Your task to perform on an android device: change keyboard looks Image 0: 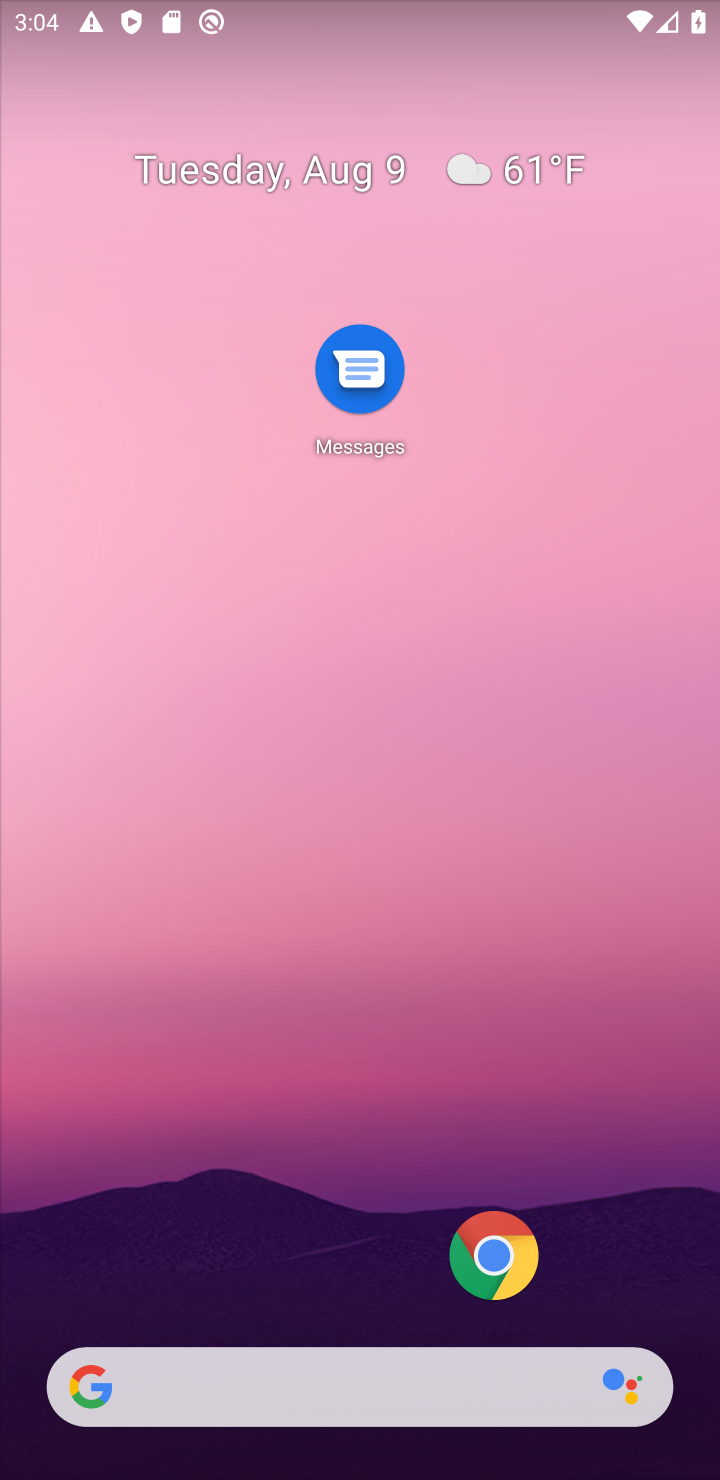
Step 0: drag from (337, 1077) to (339, 157)
Your task to perform on an android device: change keyboard looks Image 1: 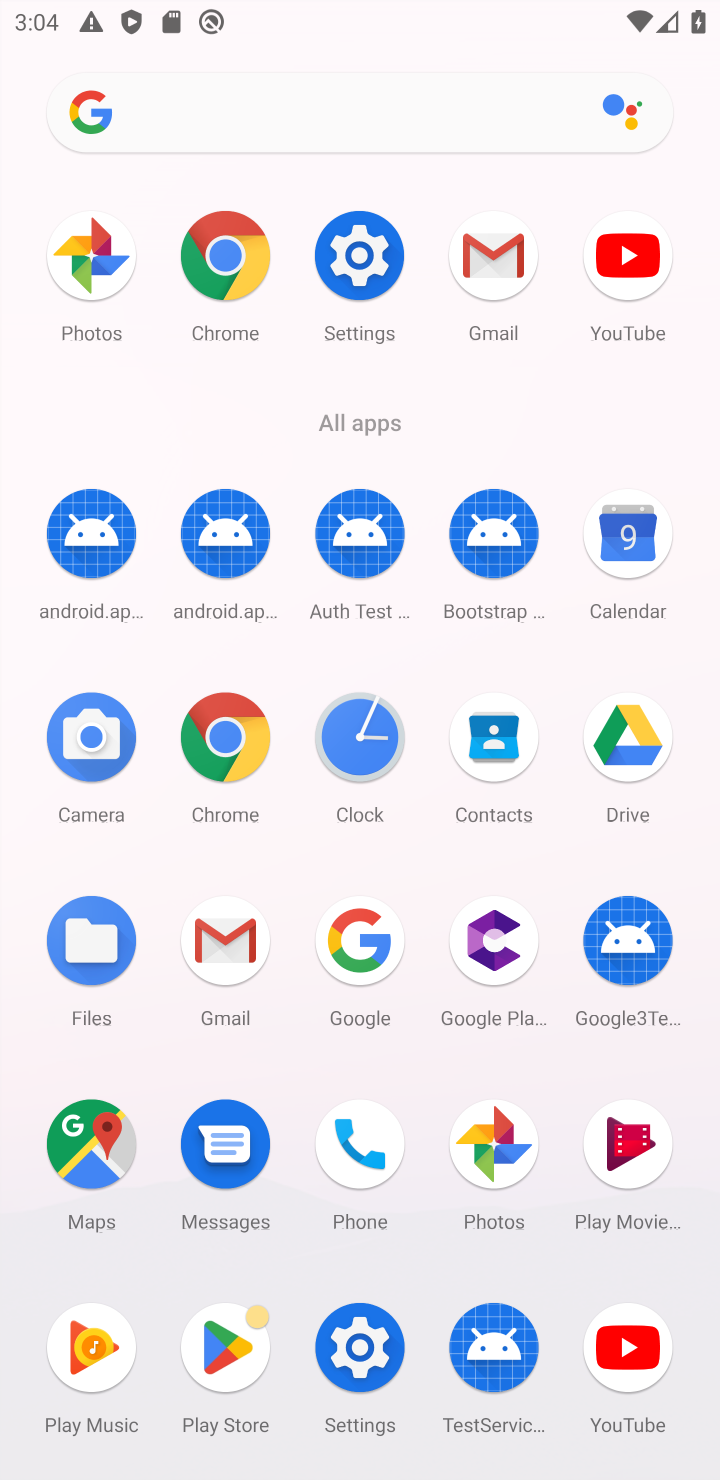
Step 1: click (341, 212)
Your task to perform on an android device: change keyboard looks Image 2: 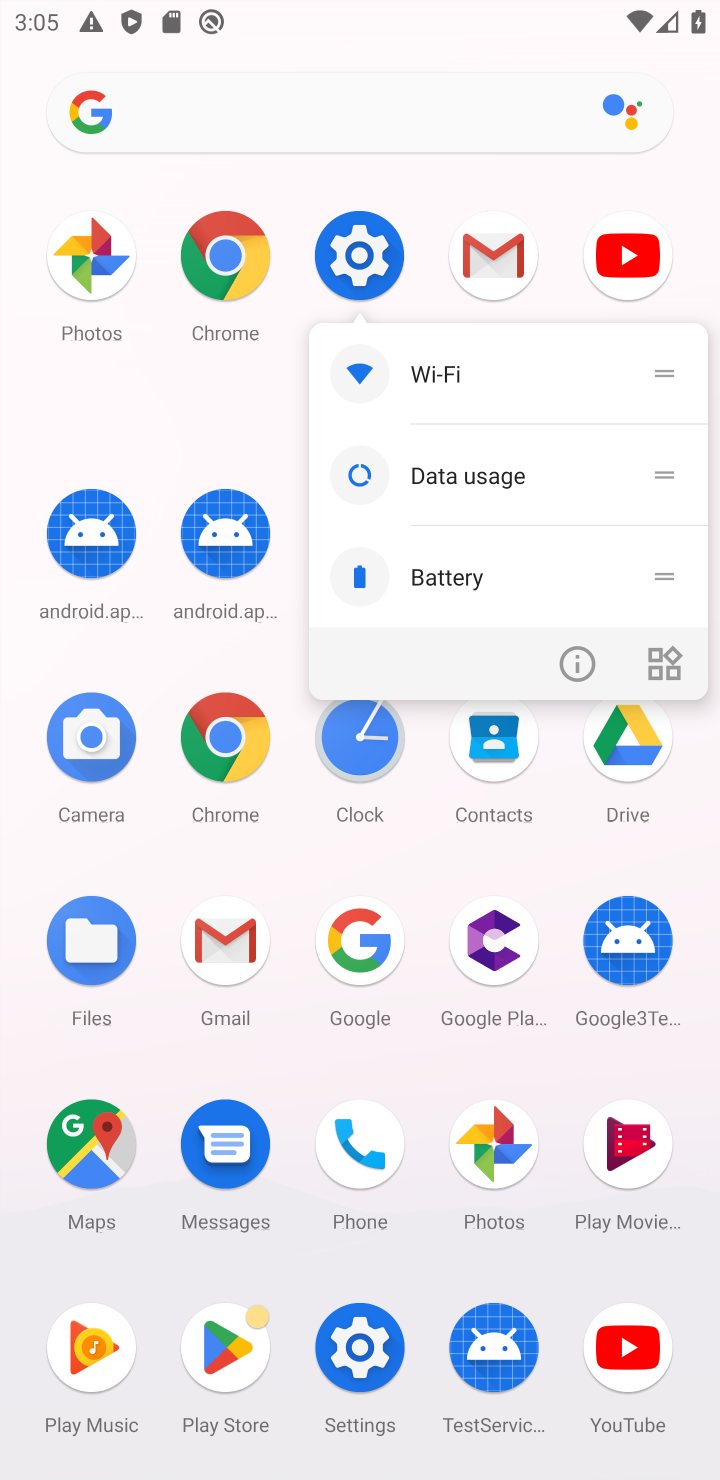
Step 2: click (354, 245)
Your task to perform on an android device: change keyboard looks Image 3: 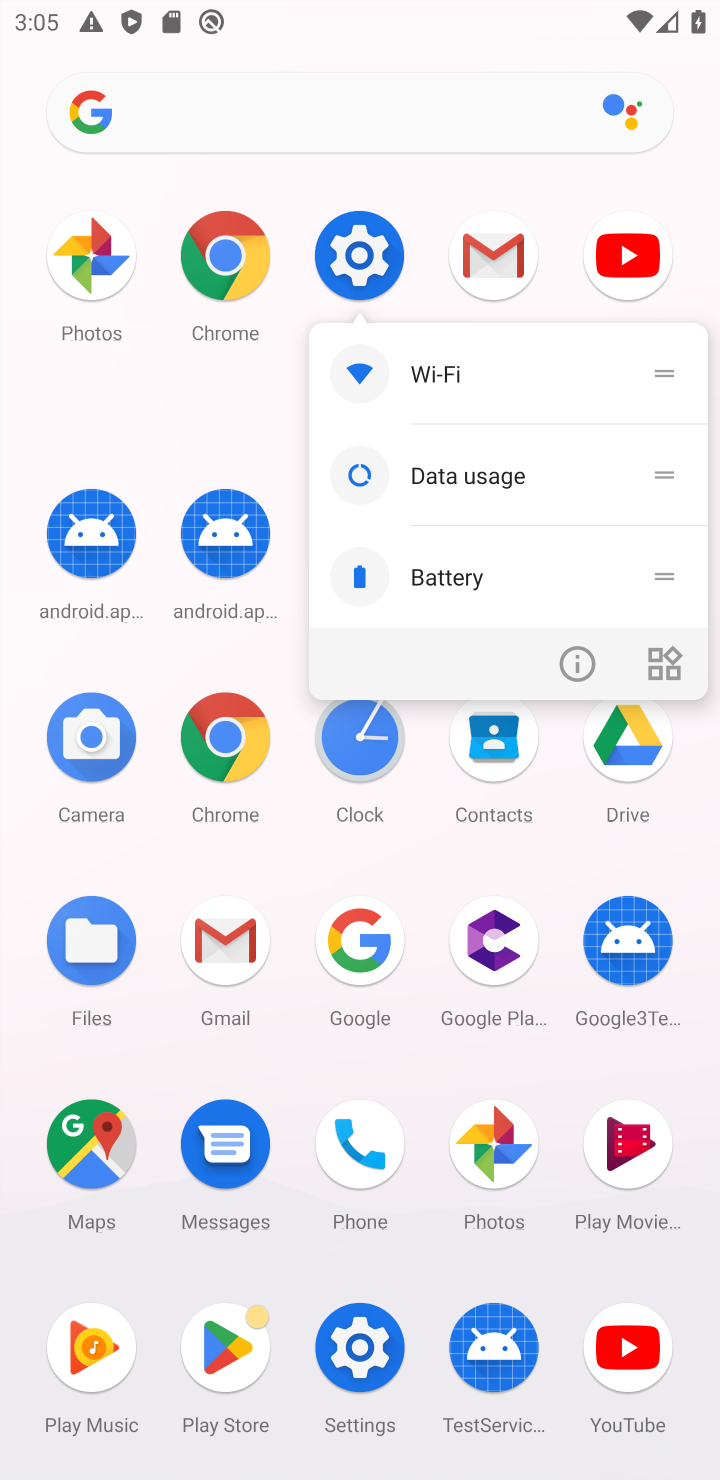
Step 3: click (345, 251)
Your task to perform on an android device: change keyboard looks Image 4: 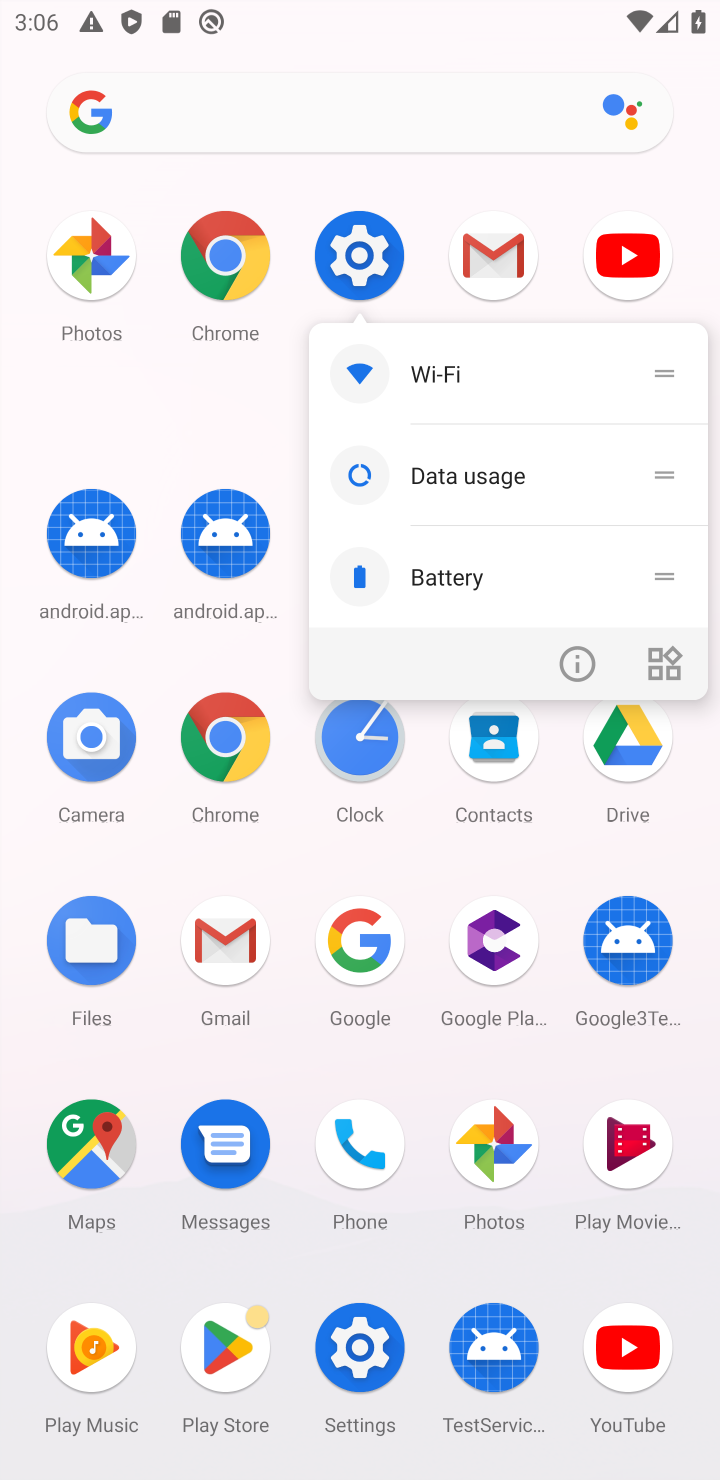
Step 4: click (364, 249)
Your task to perform on an android device: change keyboard looks Image 5: 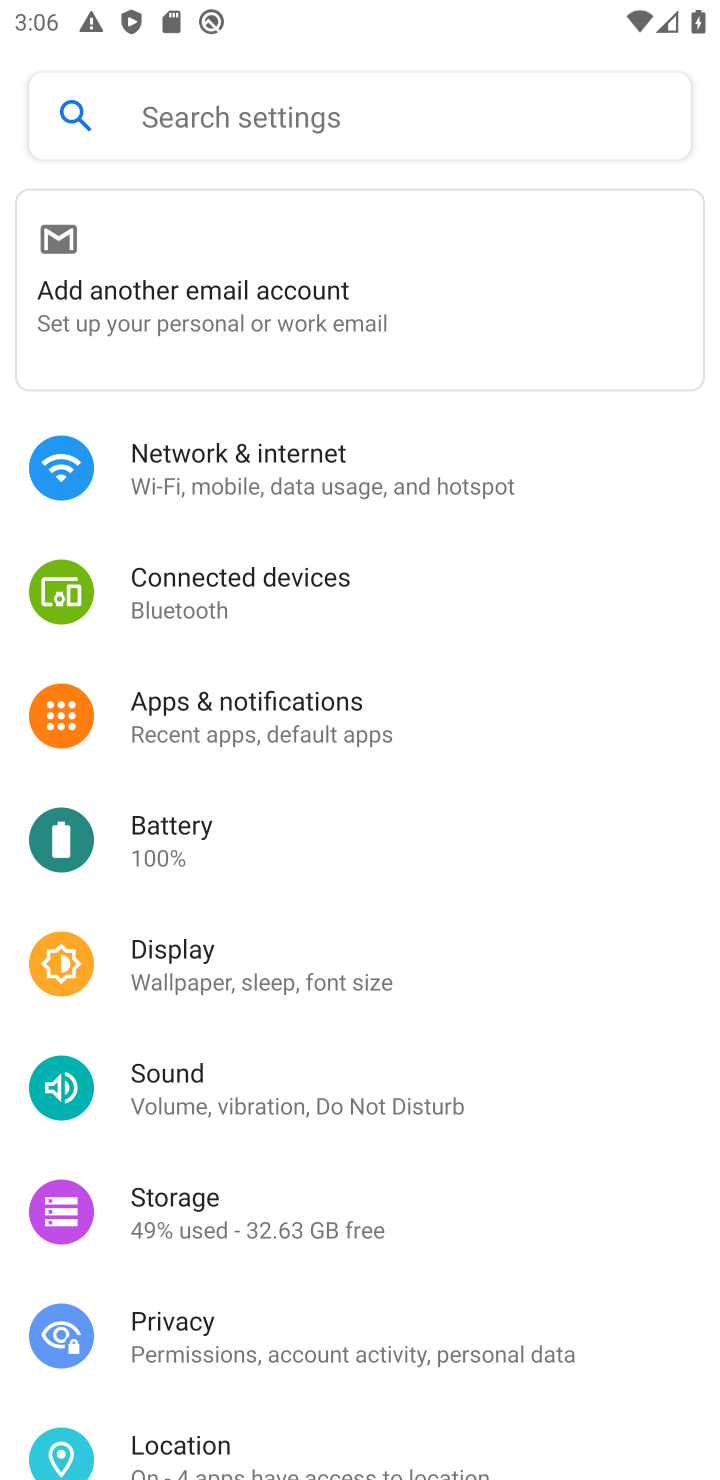
Step 5: drag from (326, 1291) to (383, 232)
Your task to perform on an android device: change keyboard looks Image 6: 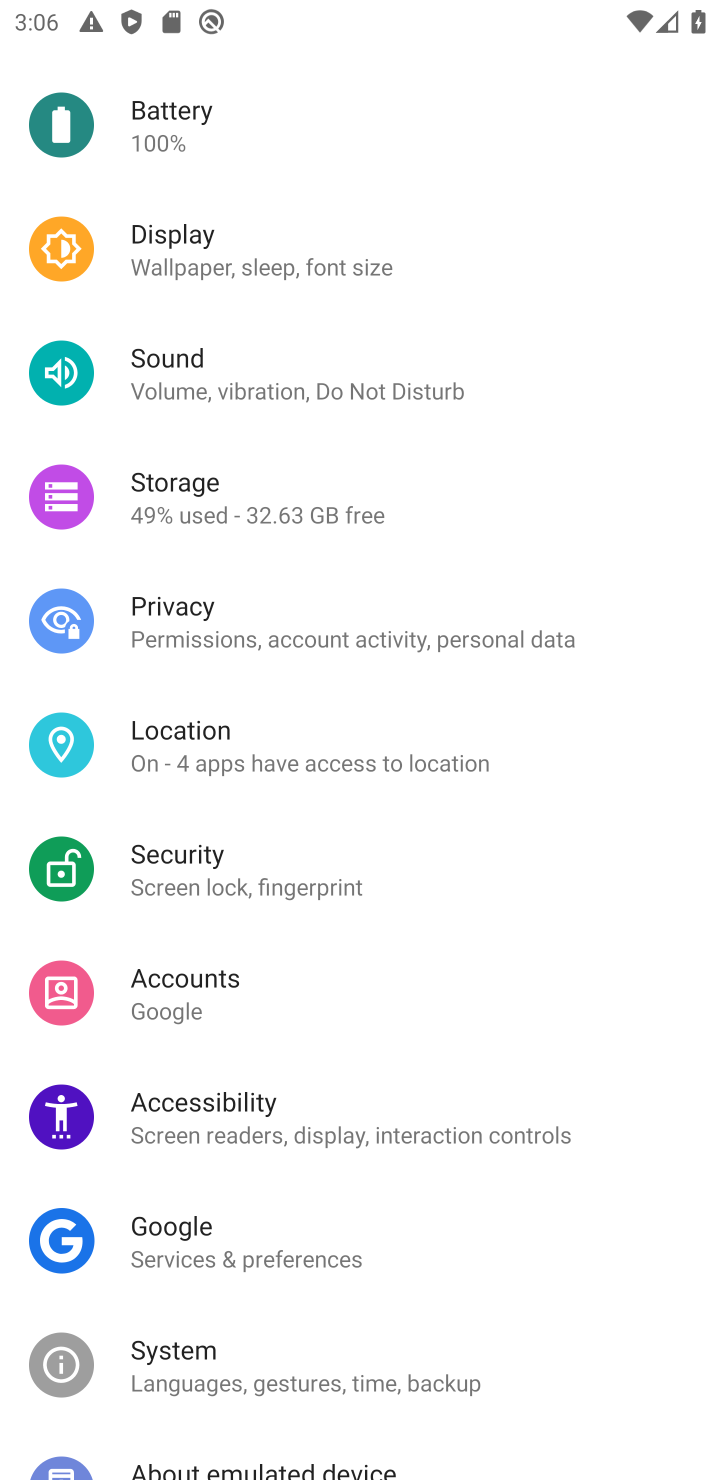
Step 6: click (279, 1107)
Your task to perform on an android device: change keyboard looks Image 7: 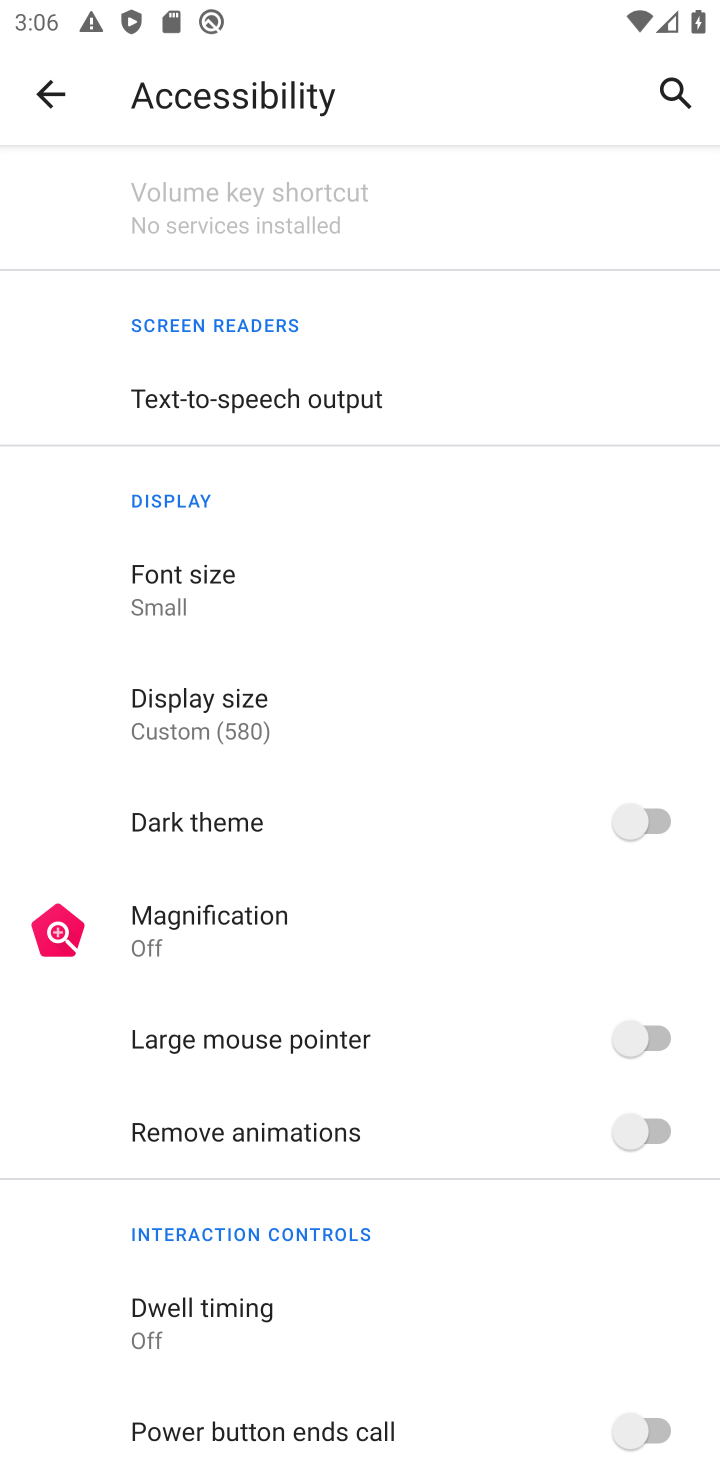
Step 7: click (265, 566)
Your task to perform on an android device: change keyboard looks Image 8: 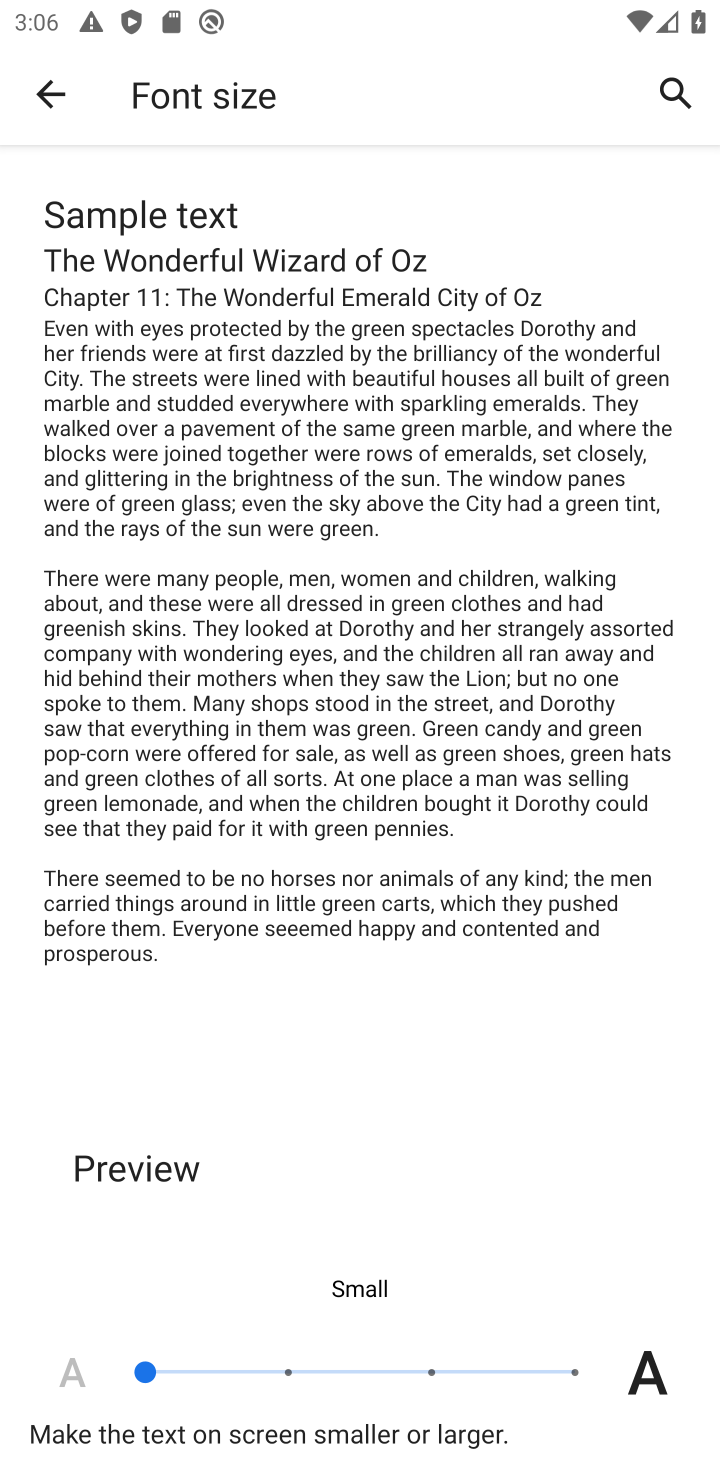
Step 8: click (418, 1352)
Your task to perform on an android device: change keyboard looks Image 9: 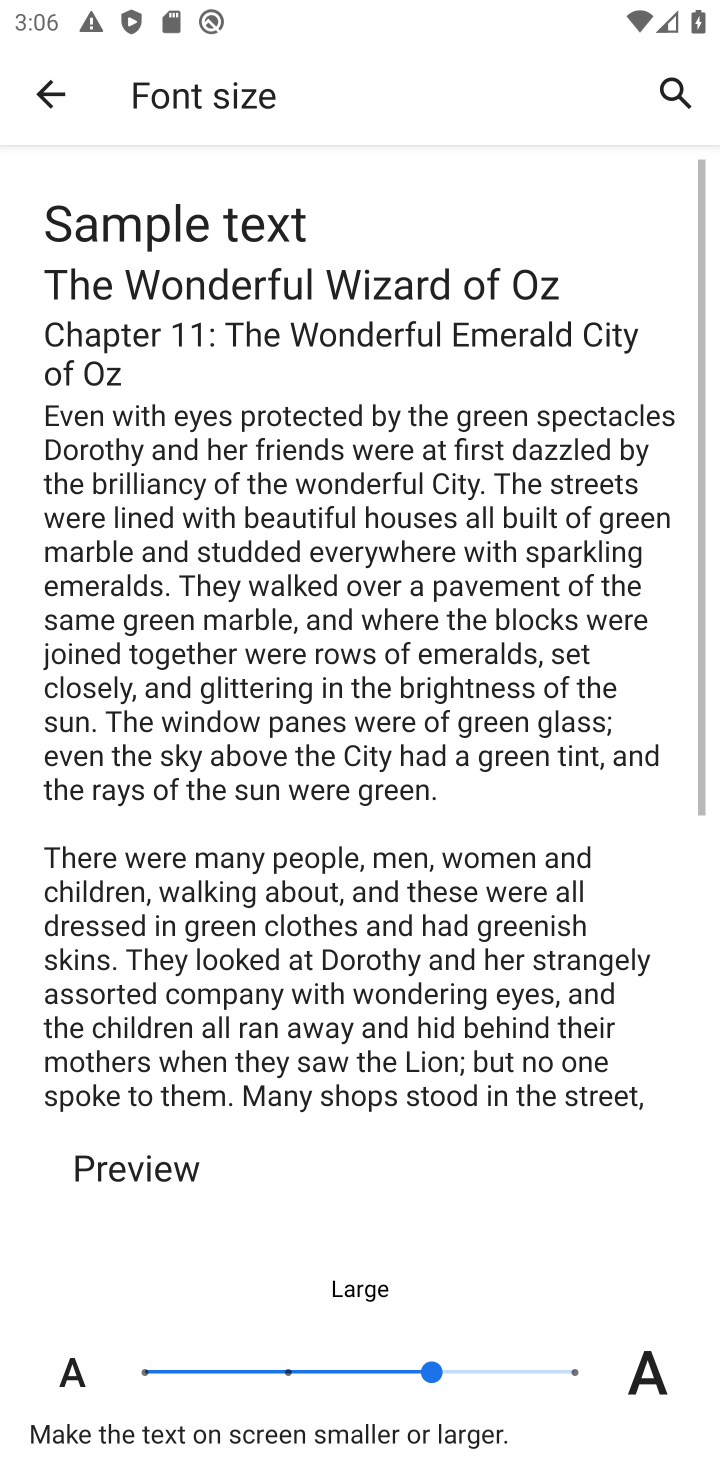
Step 9: task complete